Your task to perform on an android device: Is it going to rain tomorrow? Image 0: 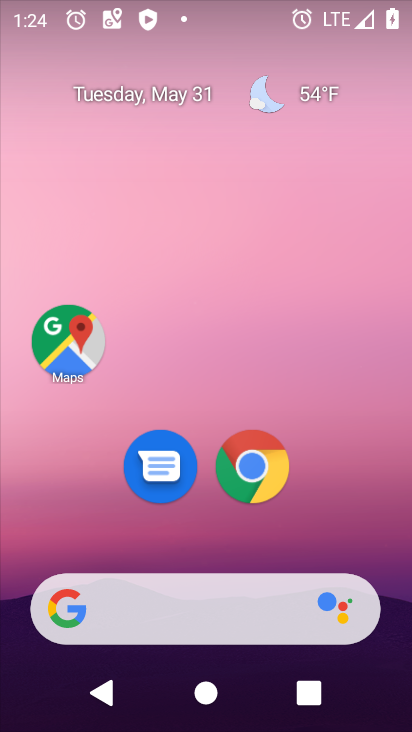
Step 0: click (309, 83)
Your task to perform on an android device: Is it going to rain tomorrow? Image 1: 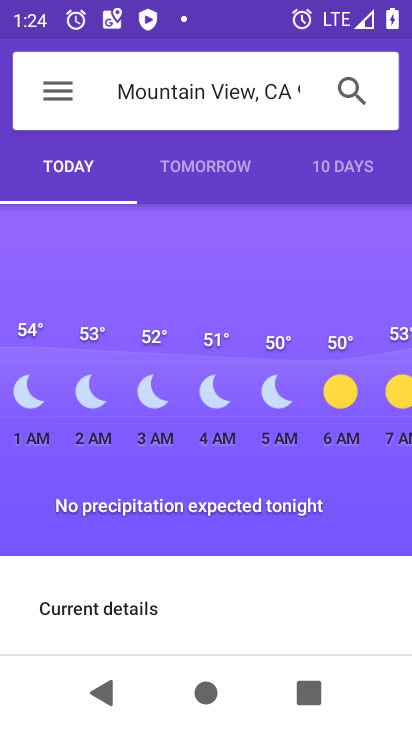
Step 1: click (217, 169)
Your task to perform on an android device: Is it going to rain tomorrow? Image 2: 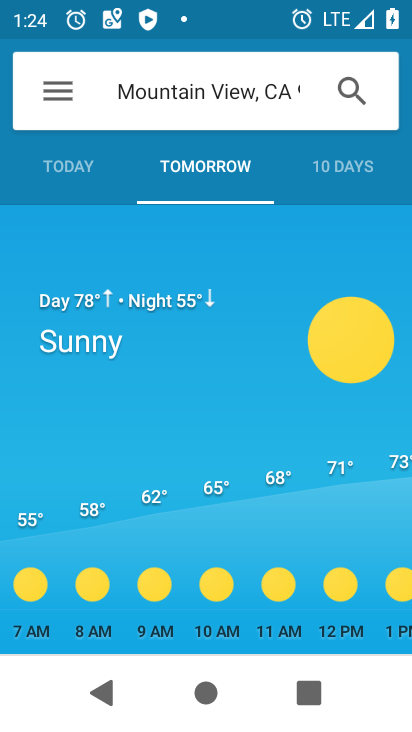
Step 2: task complete